Your task to perform on an android device: Do I have any events this weekend? Image 0: 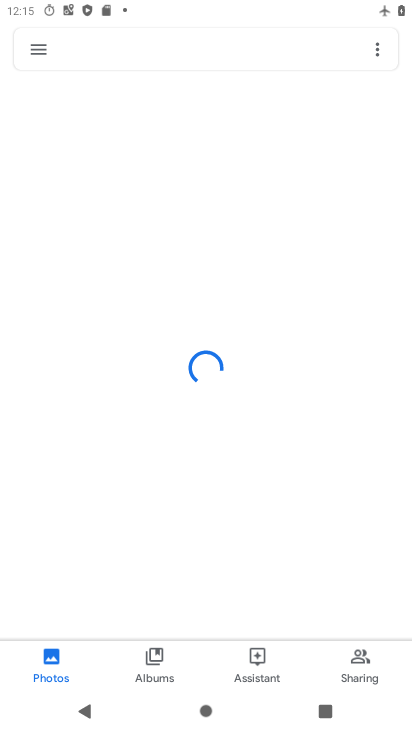
Step 0: press home button
Your task to perform on an android device: Do I have any events this weekend? Image 1: 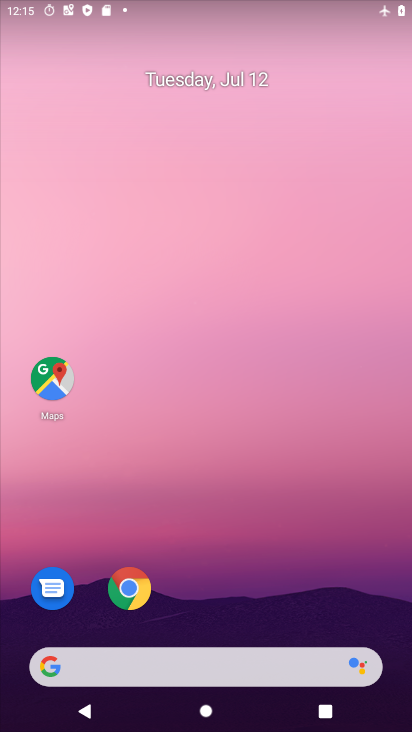
Step 1: drag from (317, 568) to (297, 69)
Your task to perform on an android device: Do I have any events this weekend? Image 2: 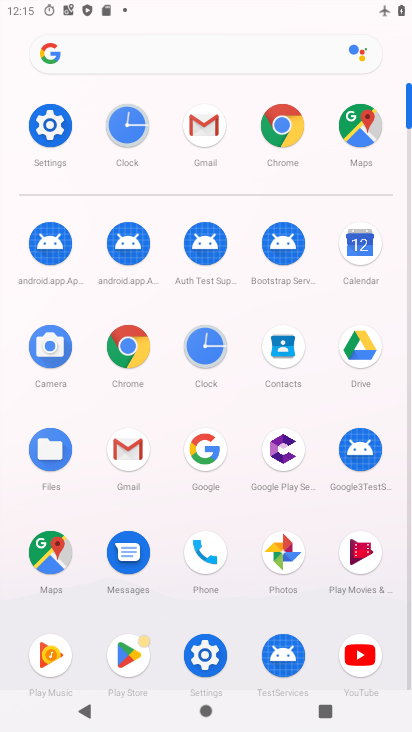
Step 2: click (361, 250)
Your task to perform on an android device: Do I have any events this weekend? Image 3: 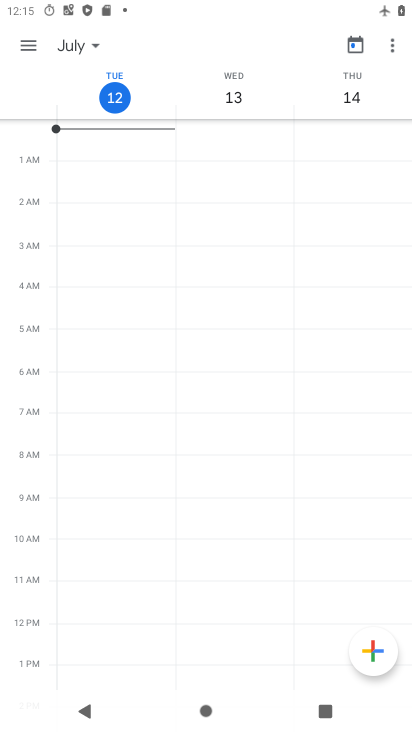
Step 3: task complete